Your task to perform on an android device: toggle priority inbox in the gmail app Image 0: 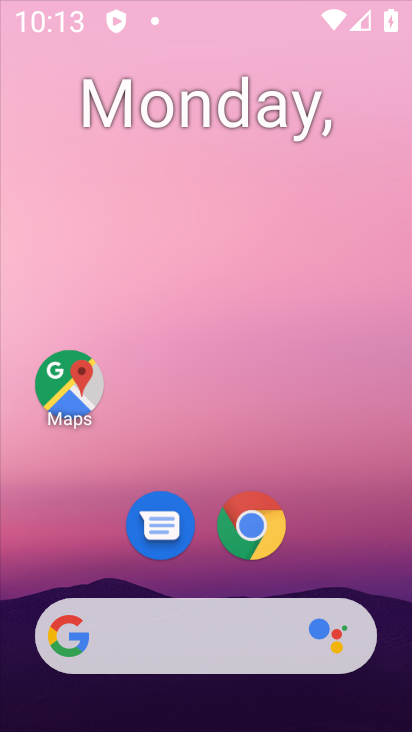
Step 0: click (54, 636)
Your task to perform on an android device: toggle priority inbox in the gmail app Image 1: 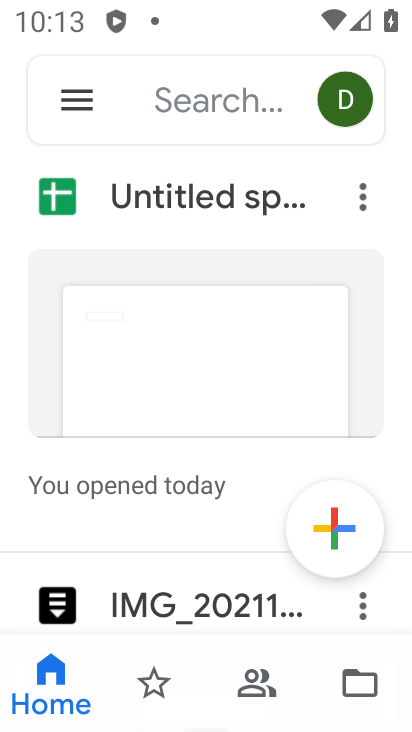
Step 1: press home button
Your task to perform on an android device: toggle priority inbox in the gmail app Image 2: 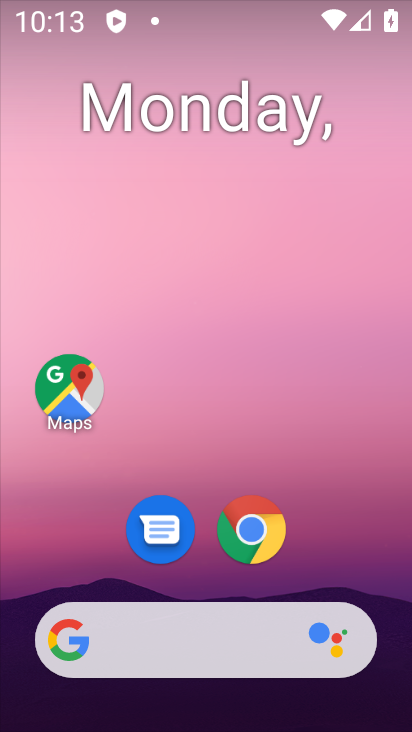
Step 2: drag from (344, 527) to (226, 37)
Your task to perform on an android device: toggle priority inbox in the gmail app Image 3: 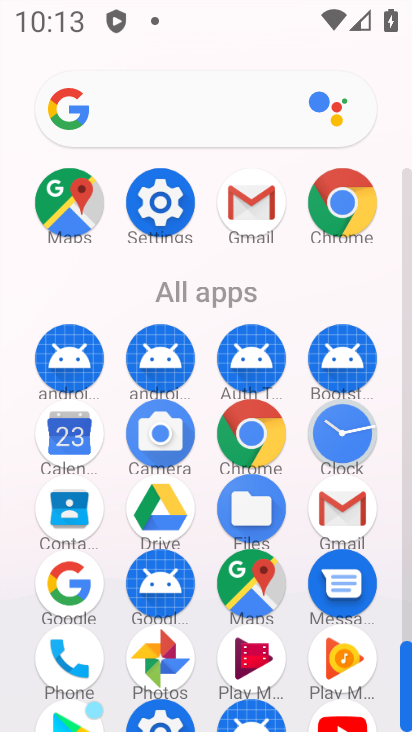
Step 3: click (245, 188)
Your task to perform on an android device: toggle priority inbox in the gmail app Image 4: 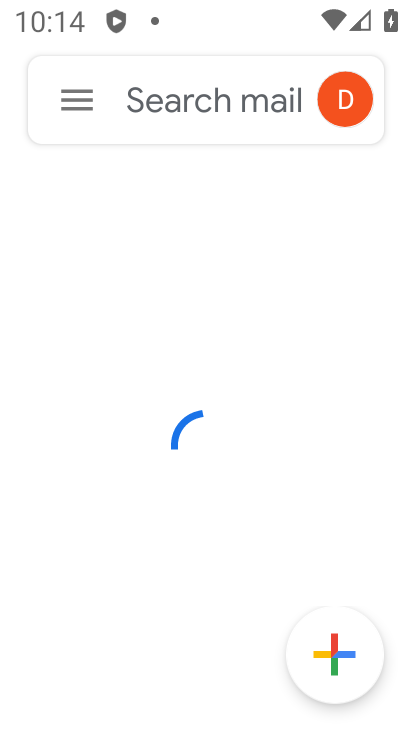
Step 4: click (71, 97)
Your task to perform on an android device: toggle priority inbox in the gmail app Image 5: 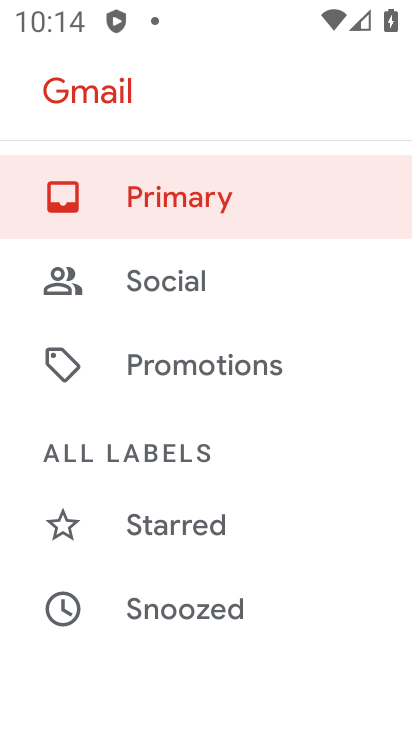
Step 5: drag from (269, 613) to (202, 109)
Your task to perform on an android device: toggle priority inbox in the gmail app Image 6: 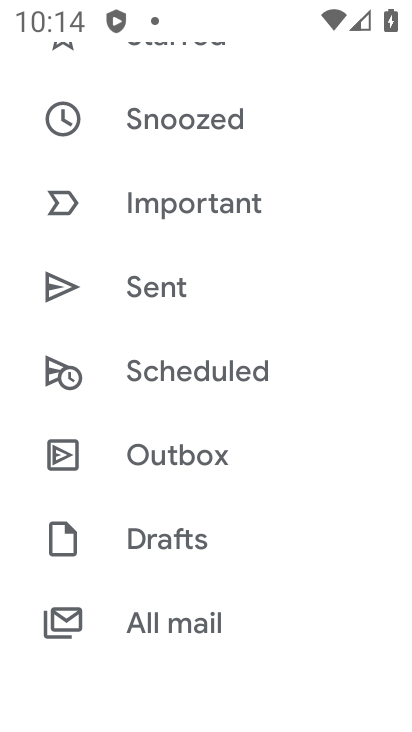
Step 6: drag from (260, 507) to (210, 166)
Your task to perform on an android device: toggle priority inbox in the gmail app Image 7: 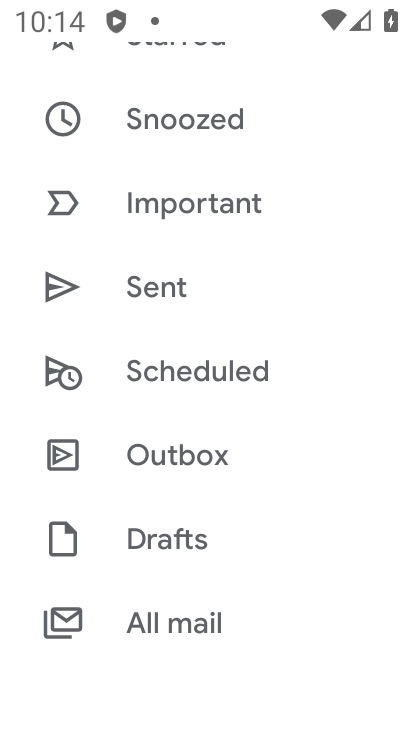
Step 7: drag from (258, 566) to (257, 112)
Your task to perform on an android device: toggle priority inbox in the gmail app Image 8: 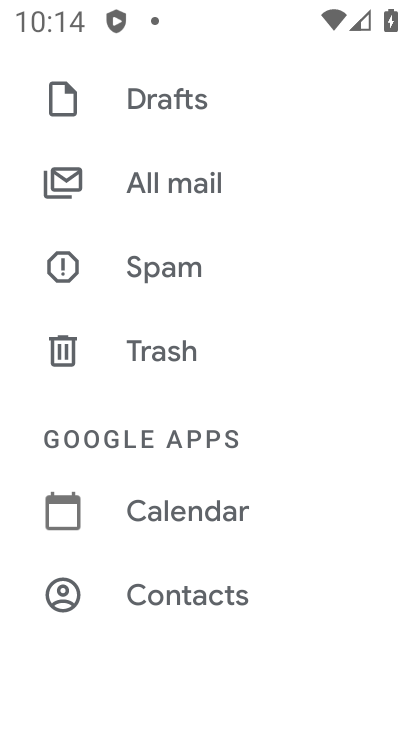
Step 8: drag from (265, 491) to (254, 46)
Your task to perform on an android device: toggle priority inbox in the gmail app Image 9: 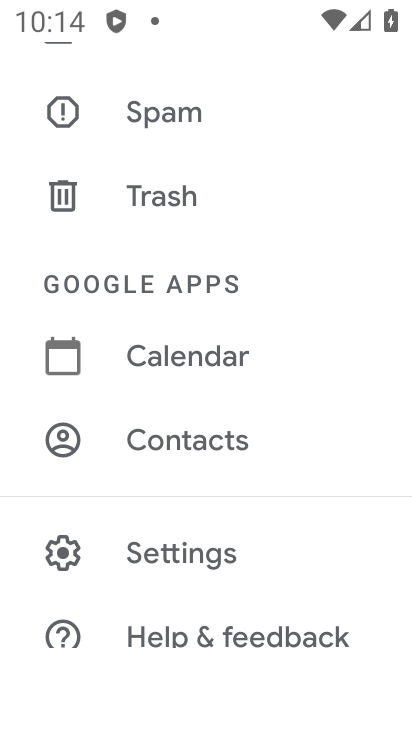
Step 9: click (173, 550)
Your task to perform on an android device: toggle priority inbox in the gmail app Image 10: 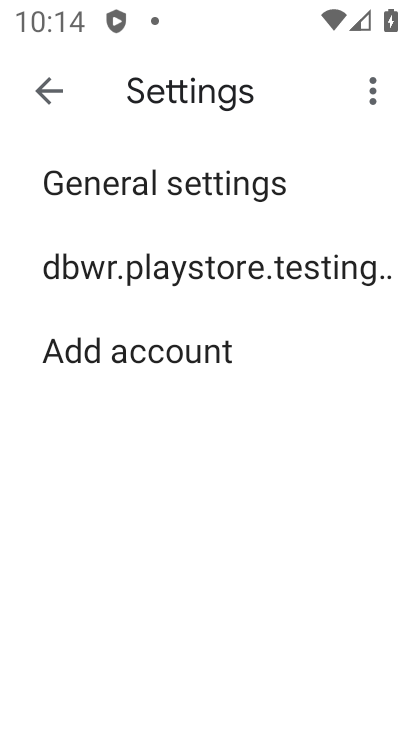
Step 10: click (126, 254)
Your task to perform on an android device: toggle priority inbox in the gmail app Image 11: 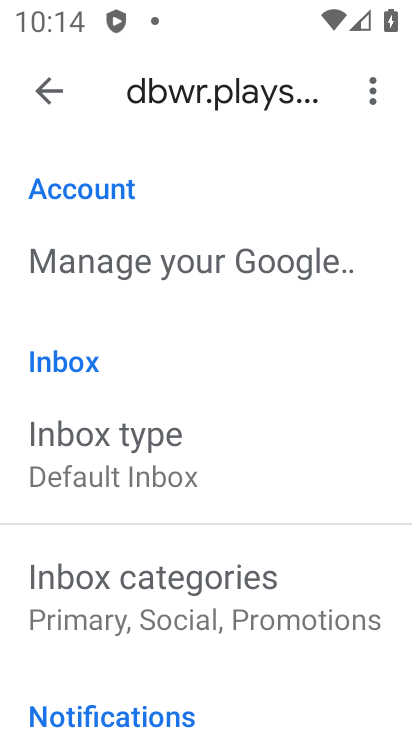
Step 11: click (90, 435)
Your task to perform on an android device: toggle priority inbox in the gmail app Image 12: 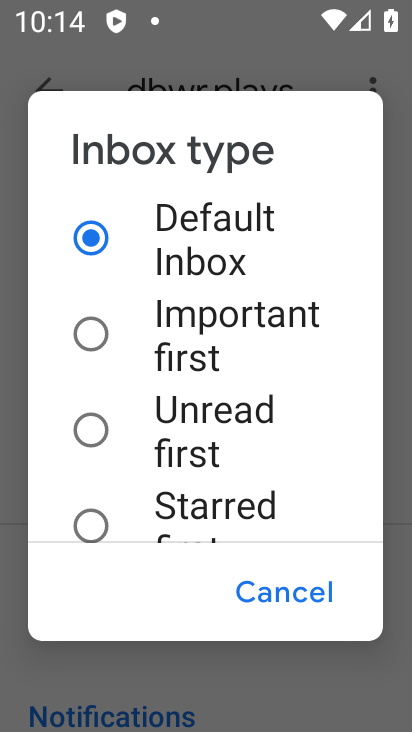
Step 12: drag from (118, 454) to (85, 139)
Your task to perform on an android device: toggle priority inbox in the gmail app Image 13: 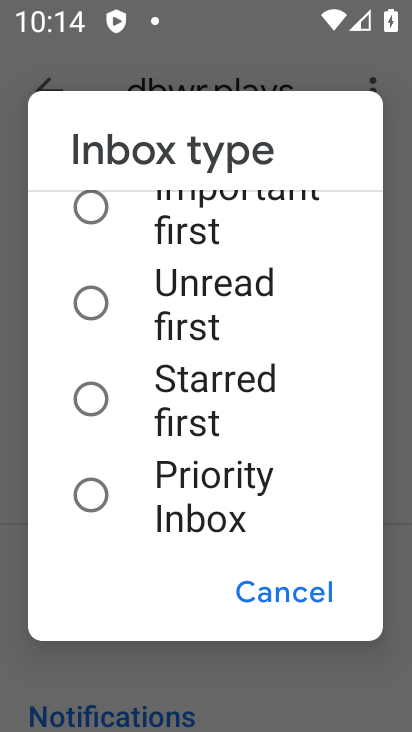
Step 13: click (90, 503)
Your task to perform on an android device: toggle priority inbox in the gmail app Image 14: 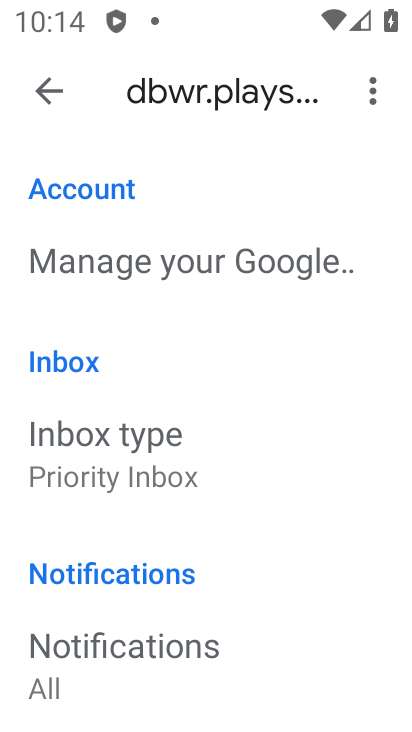
Step 14: task complete